Your task to perform on an android device: Open Google Maps Image 0: 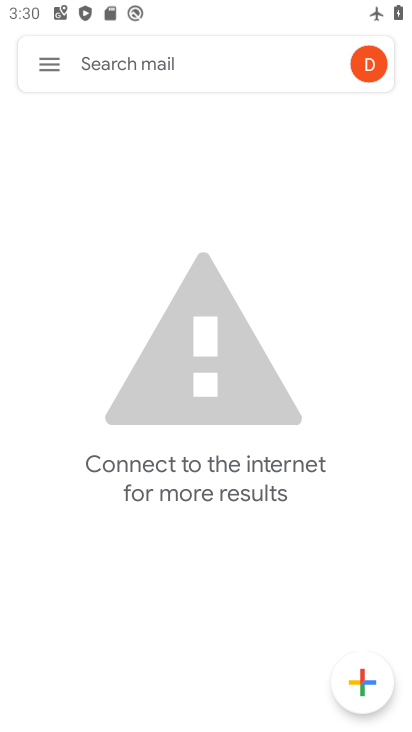
Step 0: press home button
Your task to perform on an android device: Open Google Maps Image 1: 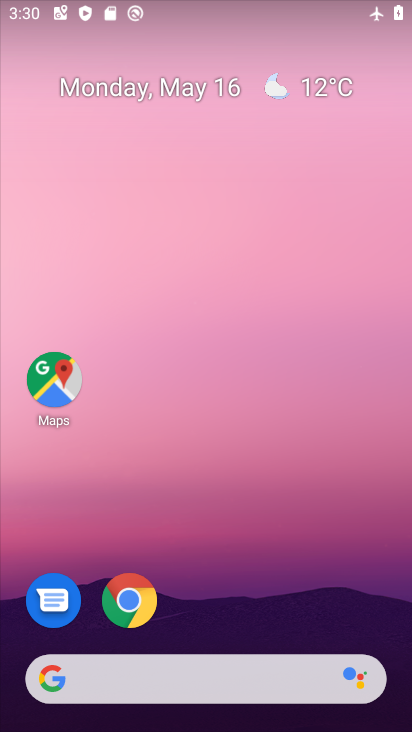
Step 1: drag from (209, 638) to (125, 74)
Your task to perform on an android device: Open Google Maps Image 2: 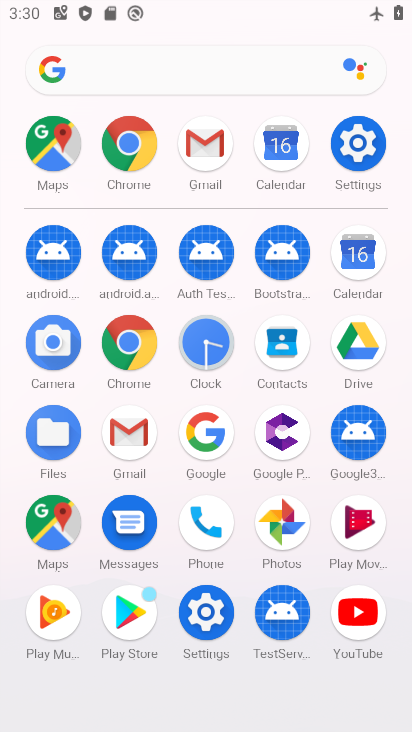
Step 2: click (37, 529)
Your task to perform on an android device: Open Google Maps Image 3: 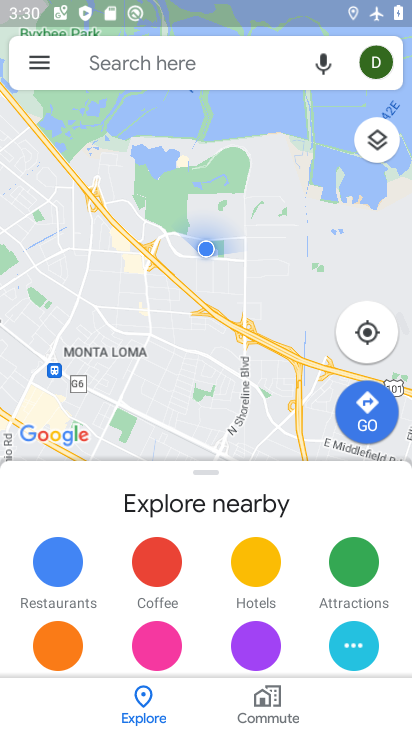
Step 3: task complete